Your task to perform on an android device: check storage Image 0: 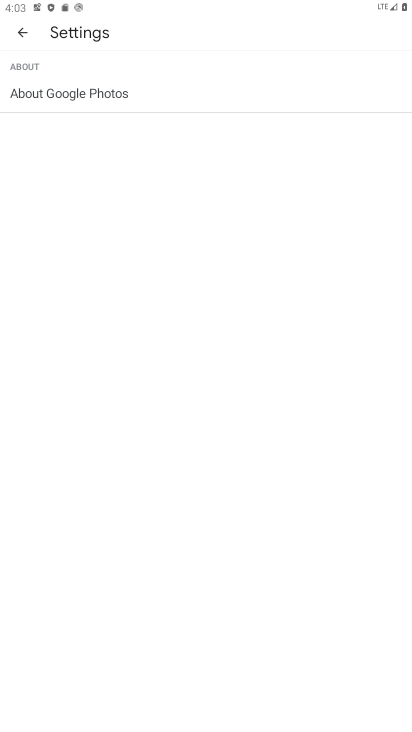
Step 0: press home button
Your task to perform on an android device: check storage Image 1: 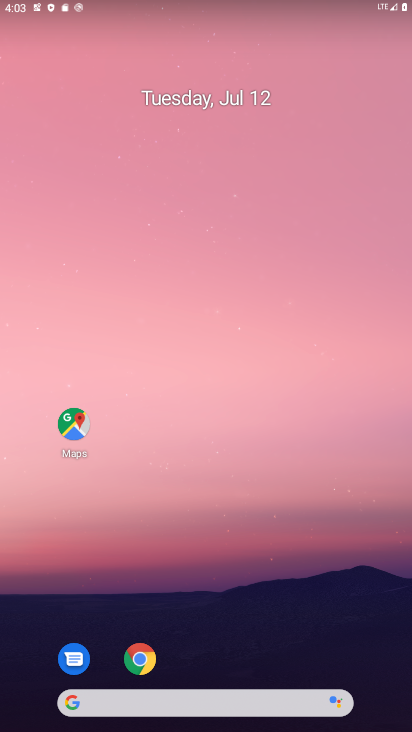
Step 1: drag from (203, 688) to (177, 246)
Your task to perform on an android device: check storage Image 2: 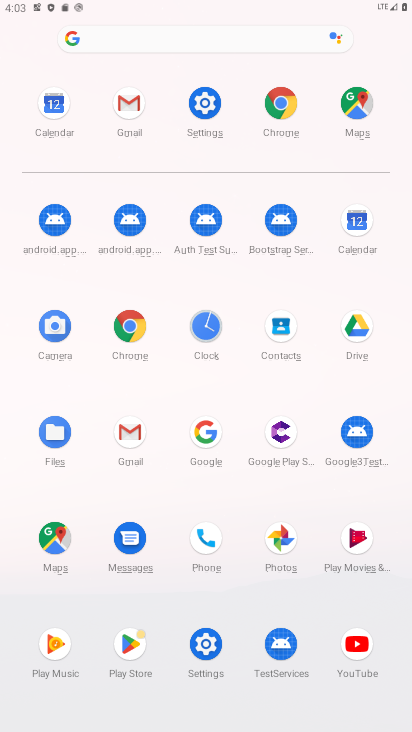
Step 2: click (210, 113)
Your task to perform on an android device: check storage Image 3: 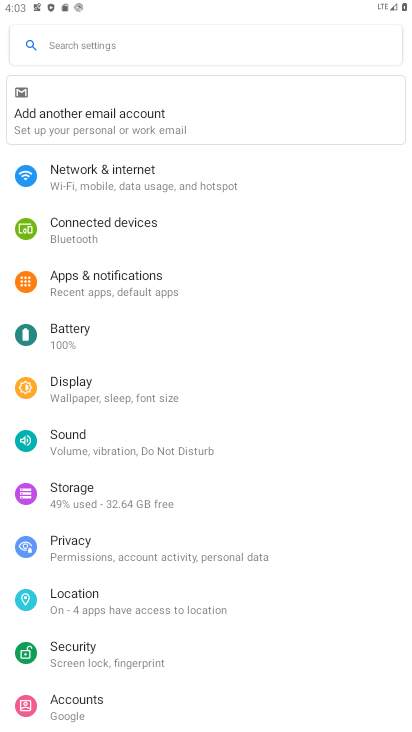
Step 3: click (69, 479)
Your task to perform on an android device: check storage Image 4: 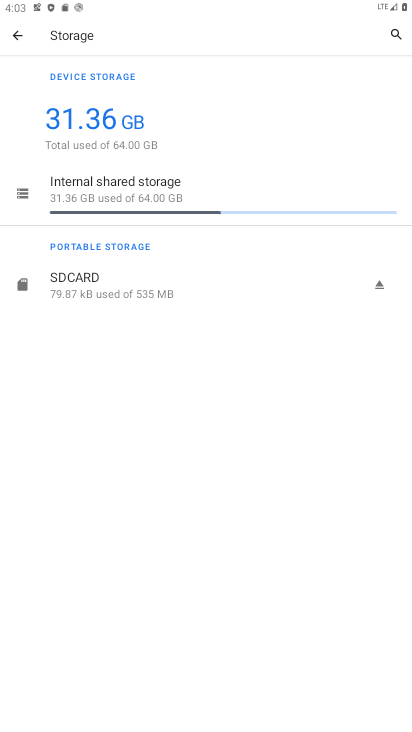
Step 4: task complete